Your task to perform on an android device: Search for pizza restaurants on Maps Image 0: 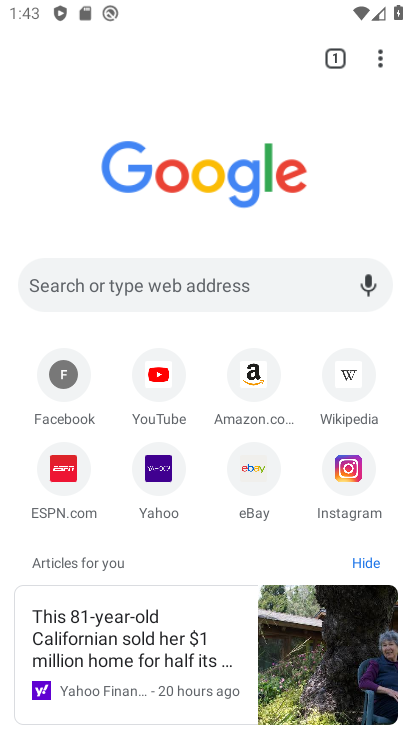
Step 0: press home button
Your task to perform on an android device: Search for pizza restaurants on Maps Image 1: 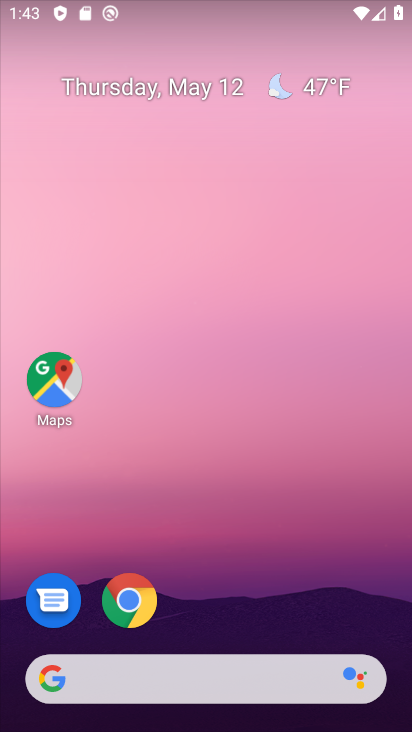
Step 1: drag from (211, 695) to (223, 170)
Your task to perform on an android device: Search for pizza restaurants on Maps Image 2: 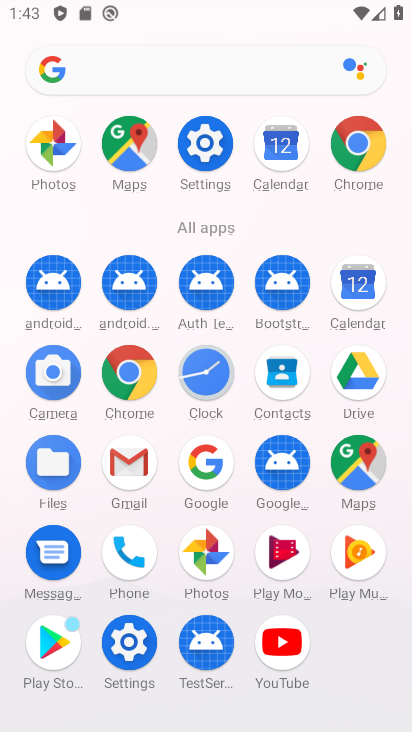
Step 2: click (359, 451)
Your task to perform on an android device: Search for pizza restaurants on Maps Image 3: 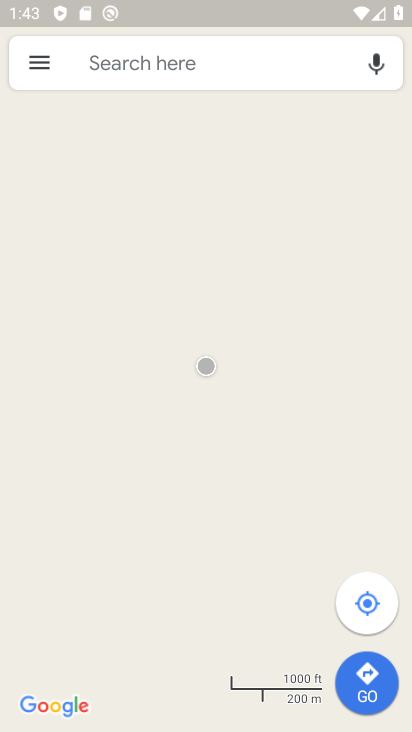
Step 3: click (201, 68)
Your task to perform on an android device: Search for pizza restaurants on Maps Image 4: 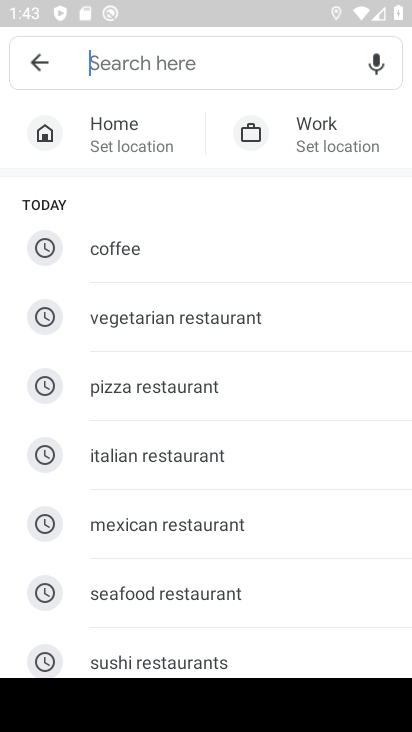
Step 4: type "pizza restaurants"
Your task to perform on an android device: Search for pizza restaurants on Maps Image 5: 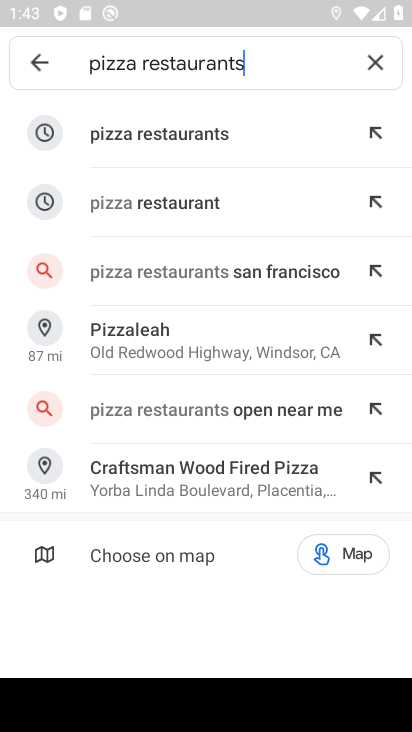
Step 5: click (179, 128)
Your task to perform on an android device: Search for pizza restaurants on Maps Image 6: 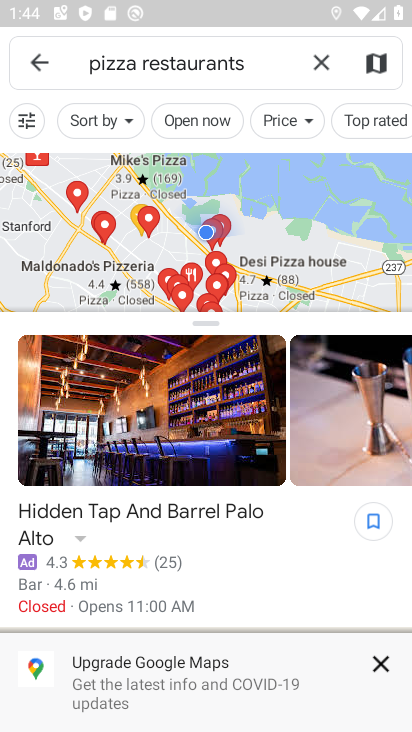
Step 6: task complete